Your task to perform on an android device: visit the assistant section in the google photos Image 0: 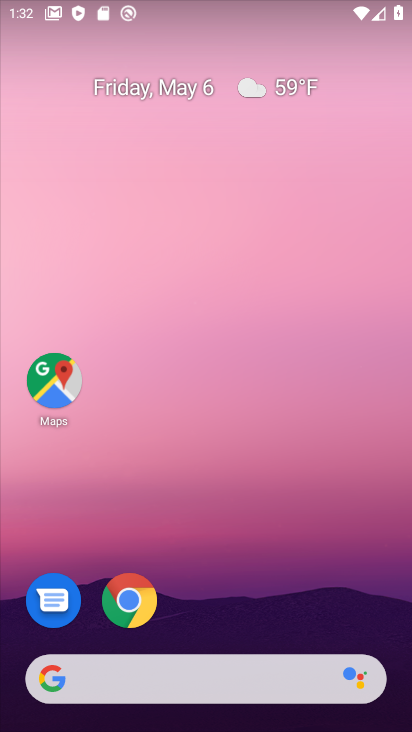
Step 0: drag from (224, 603) to (253, 107)
Your task to perform on an android device: visit the assistant section in the google photos Image 1: 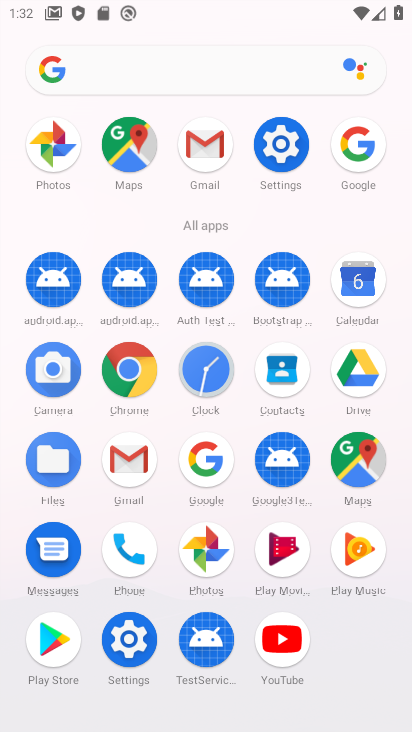
Step 1: click (211, 547)
Your task to perform on an android device: visit the assistant section in the google photos Image 2: 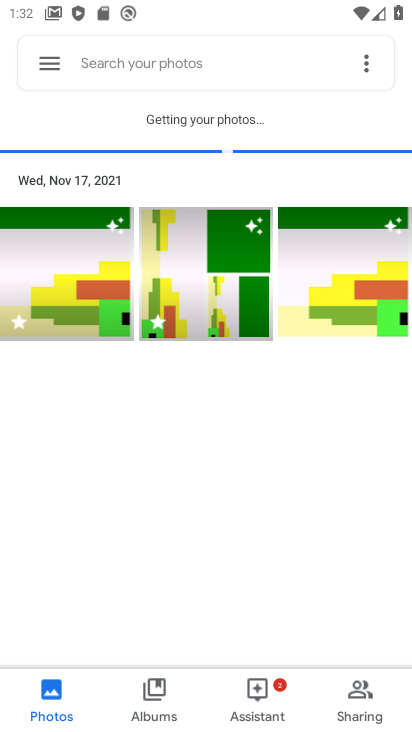
Step 2: click (265, 695)
Your task to perform on an android device: visit the assistant section in the google photos Image 3: 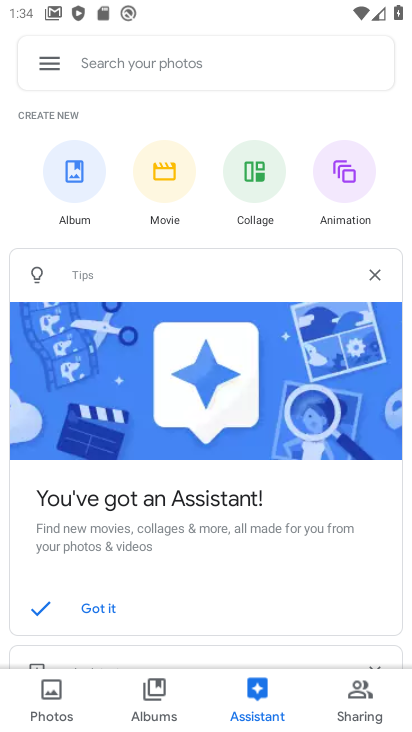
Step 3: task complete